Your task to perform on an android device: Search for a runner rug on Crate & Barrel. Image 0: 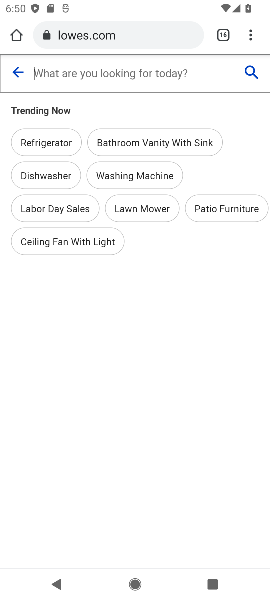
Step 0: press home button
Your task to perform on an android device: Search for a runner rug on Crate & Barrel. Image 1: 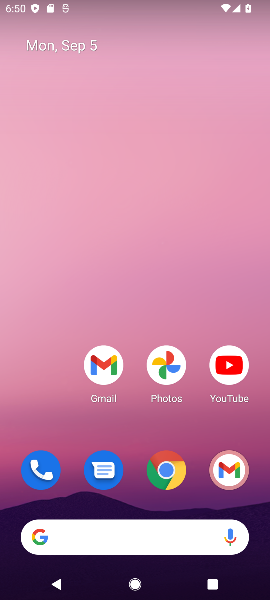
Step 1: click (127, 529)
Your task to perform on an android device: Search for a runner rug on Crate & Barrel. Image 2: 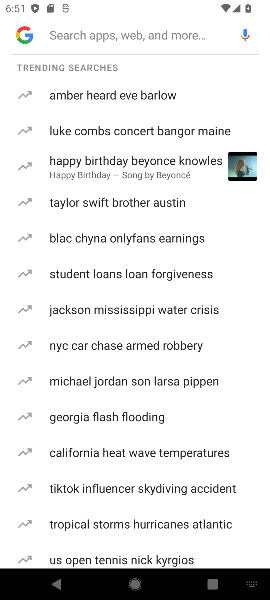
Step 2: type "crate & barrel"
Your task to perform on an android device: Search for a runner rug on Crate & Barrel. Image 3: 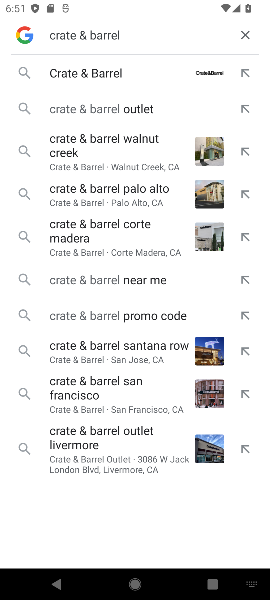
Step 3: click (114, 73)
Your task to perform on an android device: Search for a runner rug on Crate & Barrel. Image 4: 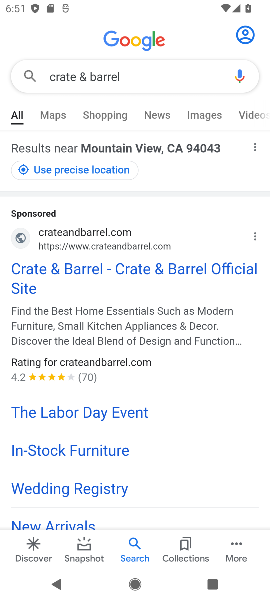
Step 4: click (98, 267)
Your task to perform on an android device: Search for a runner rug on Crate & Barrel. Image 5: 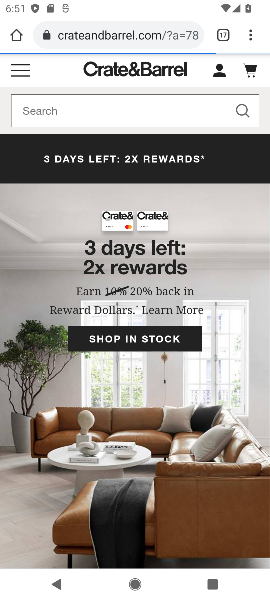
Step 5: click (123, 113)
Your task to perform on an android device: Search for a runner rug on Crate & Barrel. Image 6: 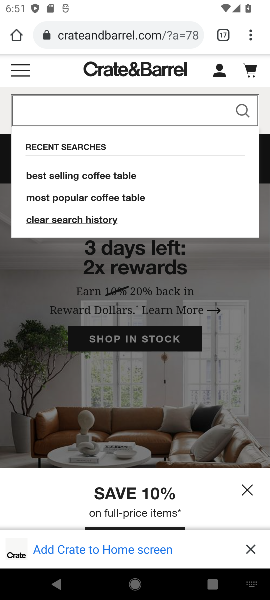
Step 6: type "runner rug"
Your task to perform on an android device: Search for a runner rug on Crate & Barrel. Image 7: 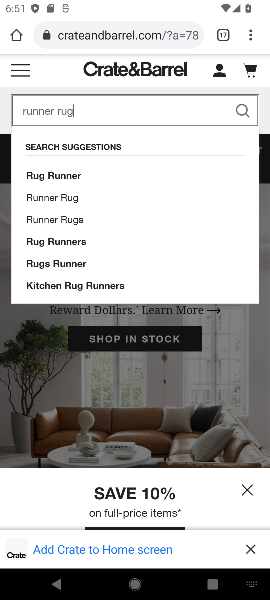
Step 7: click (238, 106)
Your task to perform on an android device: Search for a runner rug on Crate & Barrel. Image 8: 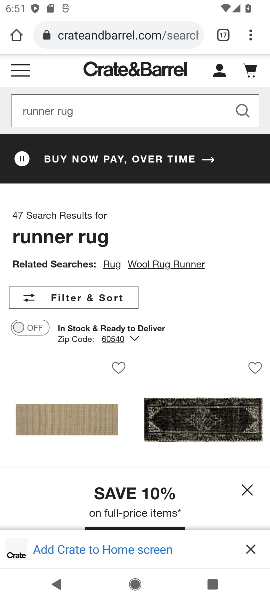
Step 8: click (232, 202)
Your task to perform on an android device: Search for a runner rug on Crate & Barrel. Image 9: 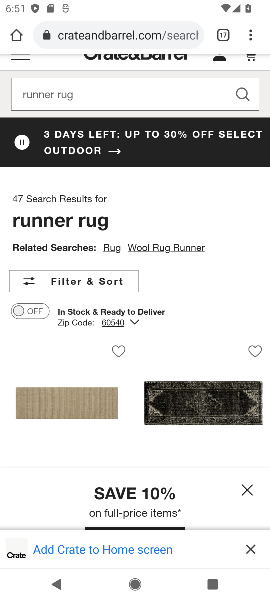
Step 9: task complete